Your task to perform on an android device: Open Google Chrome and click the shortcut for Amazon.com Image 0: 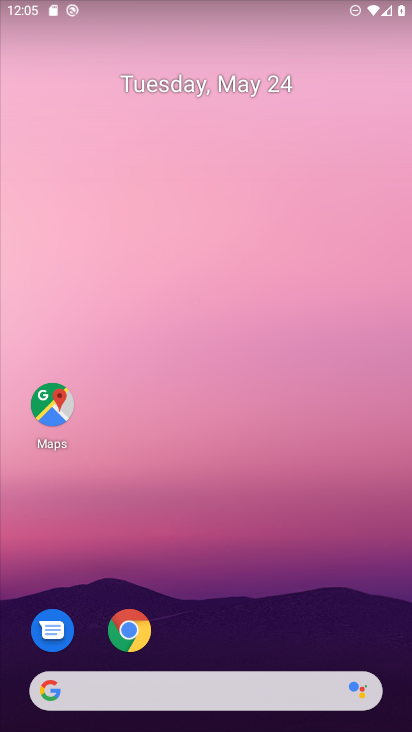
Step 0: press home button
Your task to perform on an android device: Open Google Chrome and click the shortcut for Amazon.com Image 1: 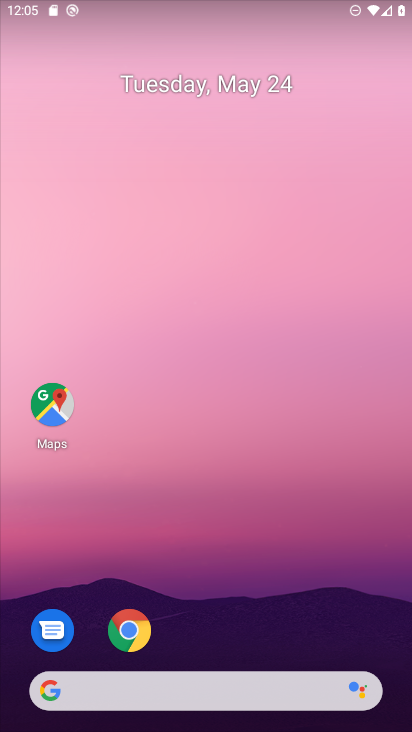
Step 1: click (131, 633)
Your task to perform on an android device: Open Google Chrome and click the shortcut for Amazon.com Image 2: 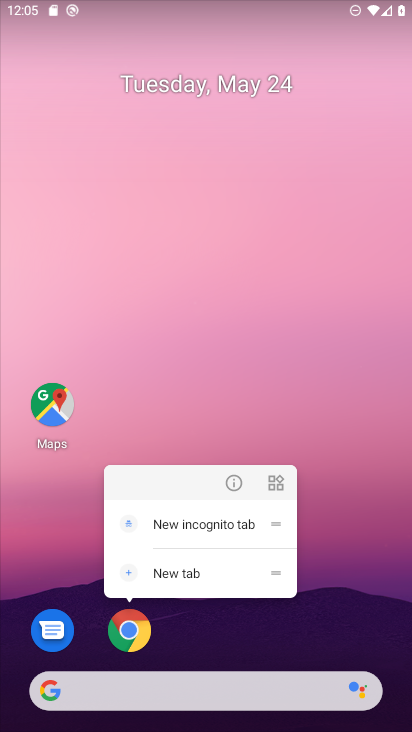
Step 2: click (134, 629)
Your task to perform on an android device: Open Google Chrome and click the shortcut for Amazon.com Image 3: 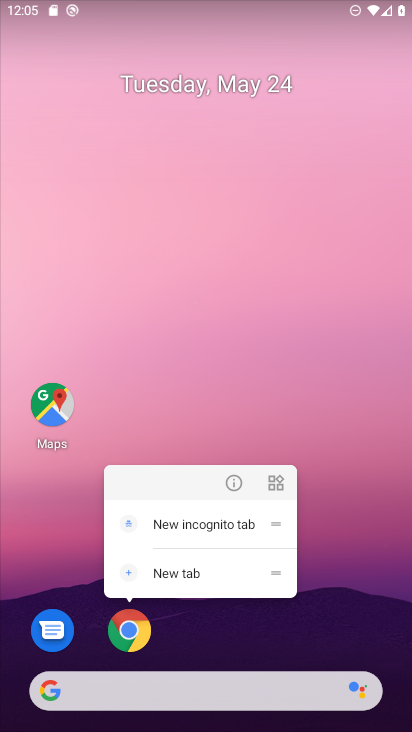
Step 3: click (134, 626)
Your task to perform on an android device: Open Google Chrome and click the shortcut for Amazon.com Image 4: 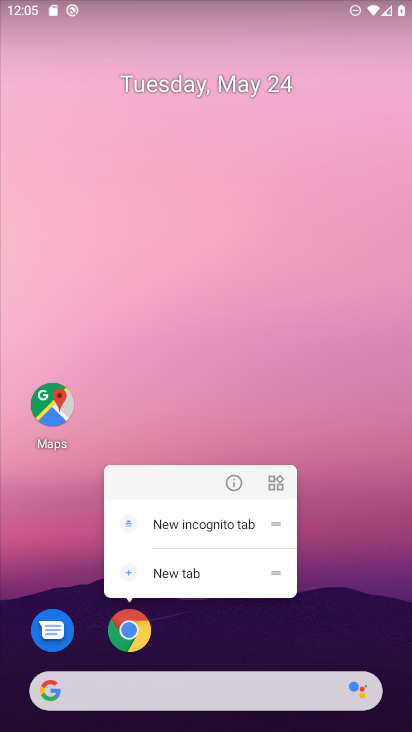
Step 4: click (130, 630)
Your task to perform on an android device: Open Google Chrome and click the shortcut for Amazon.com Image 5: 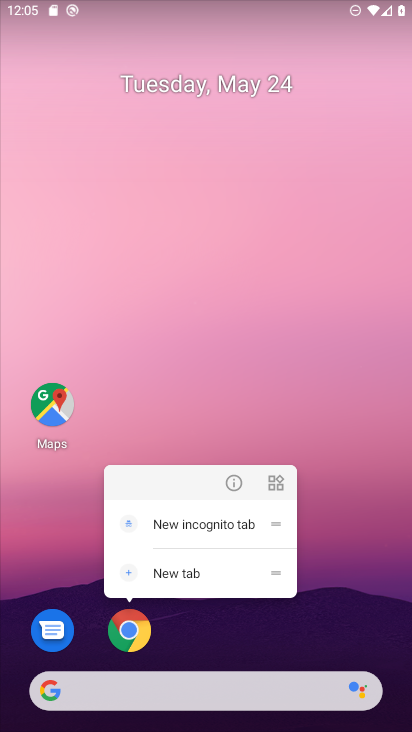
Step 5: click (132, 628)
Your task to perform on an android device: Open Google Chrome and click the shortcut for Amazon.com Image 6: 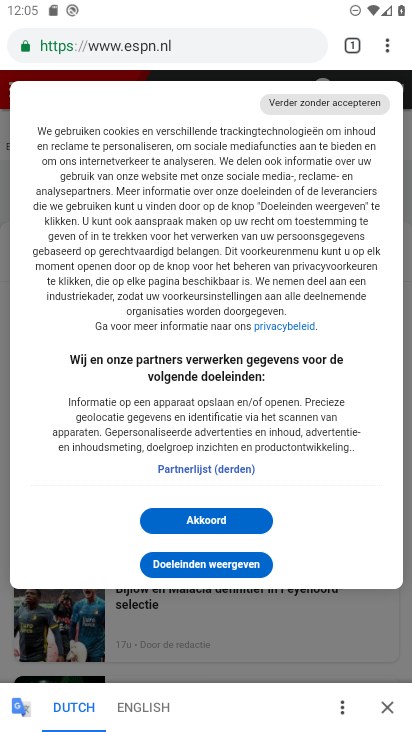
Step 6: click (386, 46)
Your task to perform on an android device: Open Google Chrome and click the shortcut for Amazon.com Image 7: 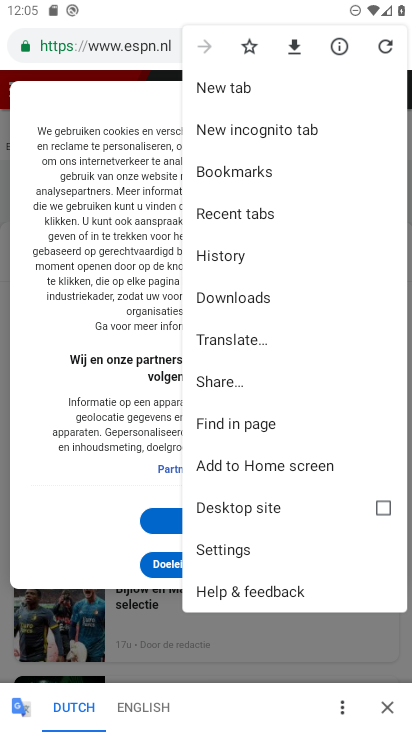
Step 7: click (93, 50)
Your task to perform on an android device: Open Google Chrome and click the shortcut for Amazon.com Image 8: 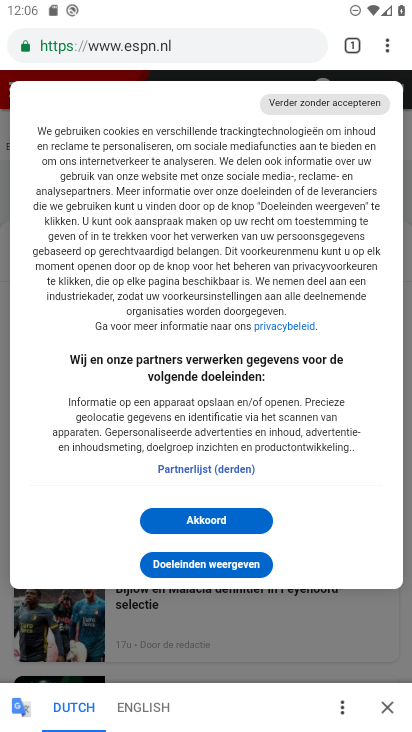
Step 8: click (171, 44)
Your task to perform on an android device: Open Google Chrome and click the shortcut for Amazon.com Image 9: 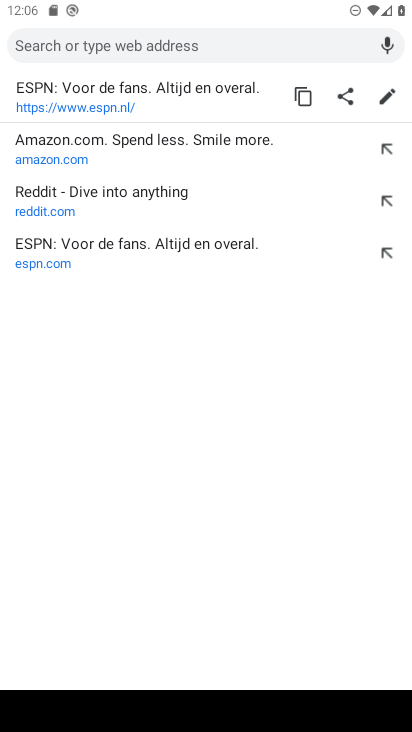
Step 9: type "amazon.com"
Your task to perform on an android device: Open Google Chrome and click the shortcut for Amazon.com Image 10: 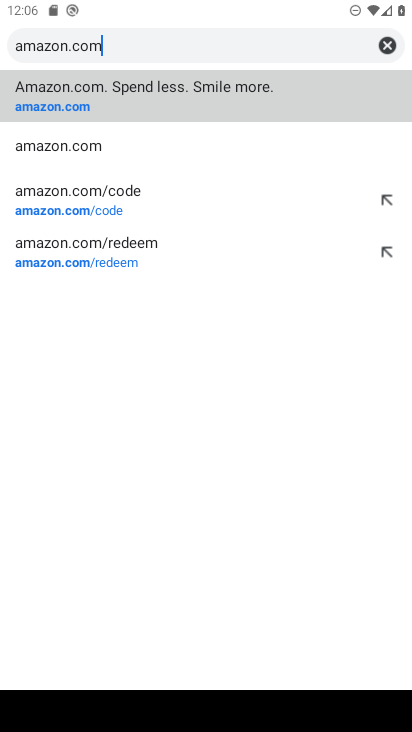
Step 10: click (116, 101)
Your task to perform on an android device: Open Google Chrome and click the shortcut for Amazon.com Image 11: 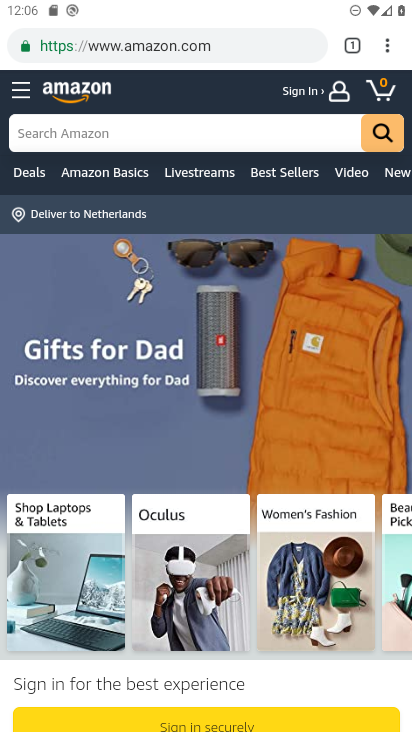
Step 11: click (390, 42)
Your task to perform on an android device: Open Google Chrome and click the shortcut for Amazon.com Image 12: 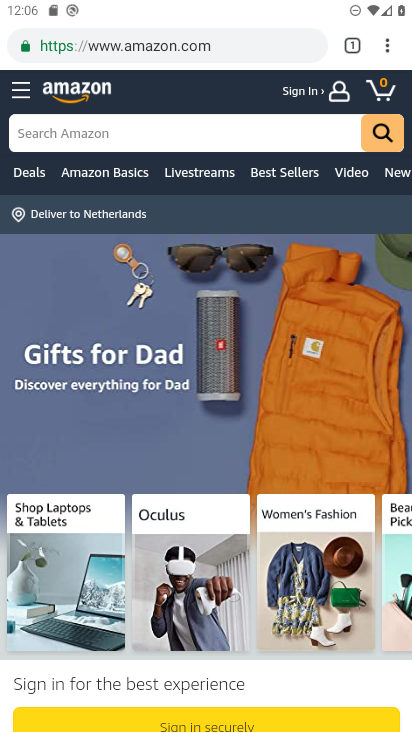
Step 12: click (384, 45)
Your task to perform on an android device: Open Google Chrome and click the shortcut for Amazon.com Image 13: 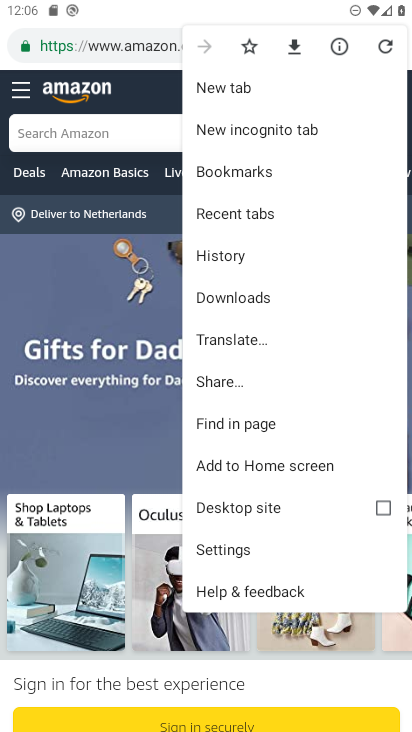
Step 13: click (251, 41)
Your task to perform on an android device: Open Google Chrome and click the shortcut for Amazon.com Image 14: 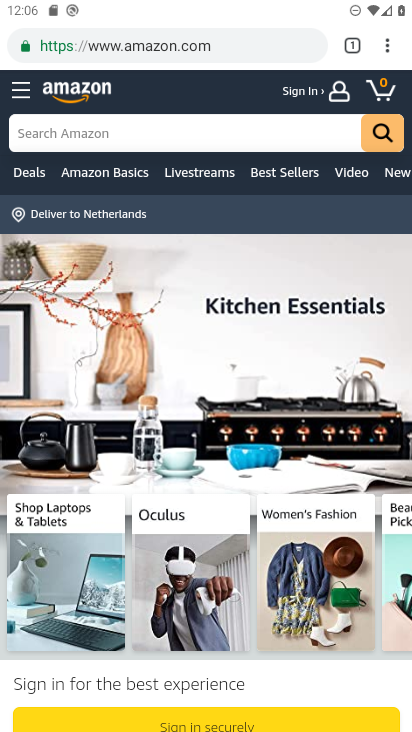
Step 14: task complete